Your task to perform on an android device: turn smart compose on in the gmail app Image 0: 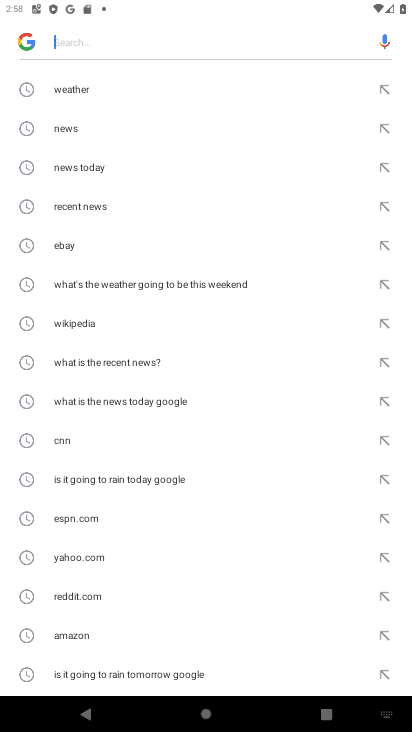
Step 0: press home button
Your task to perform on an android device: turn smart compose on in the gmail app Image 1: 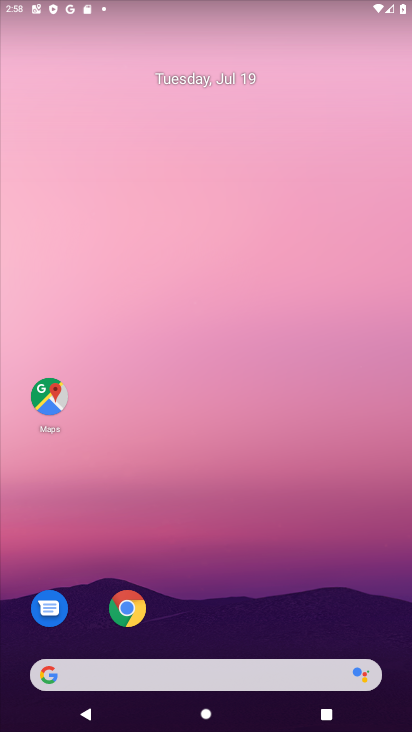
Step 1: drag from (277, 613) to (261, 5)
Your task to perform on an android device: turn smart compose on in the gmail app Image 2: 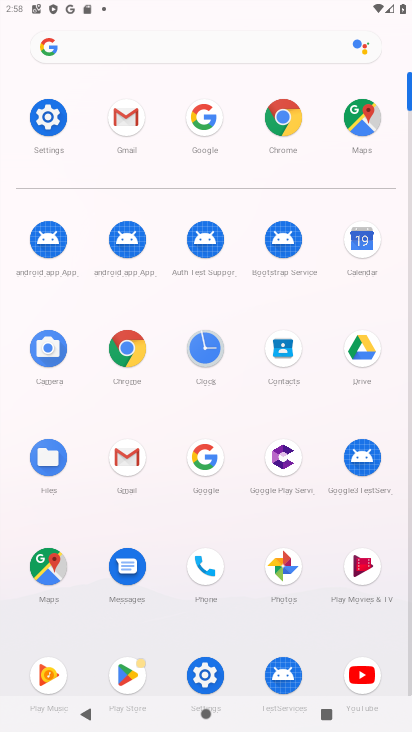
Step 2: click (131, 119)
Your task to perform on an android device: turn smart compose on in the gmail app Image 3: 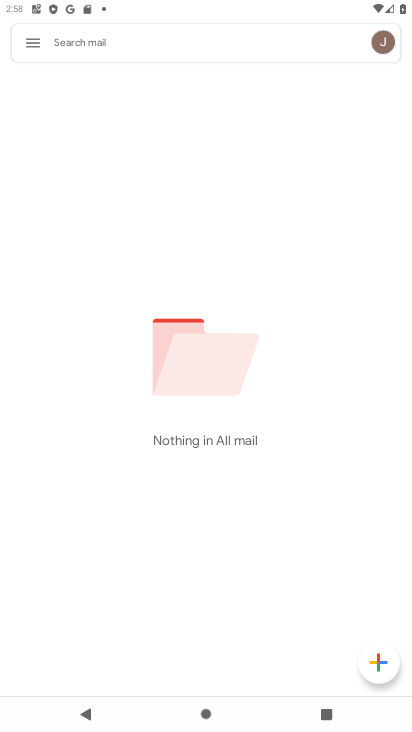
Step 3: click (40, 35)
Your task to perform on an android device: turn smart compose on in the gmail app Image 4: 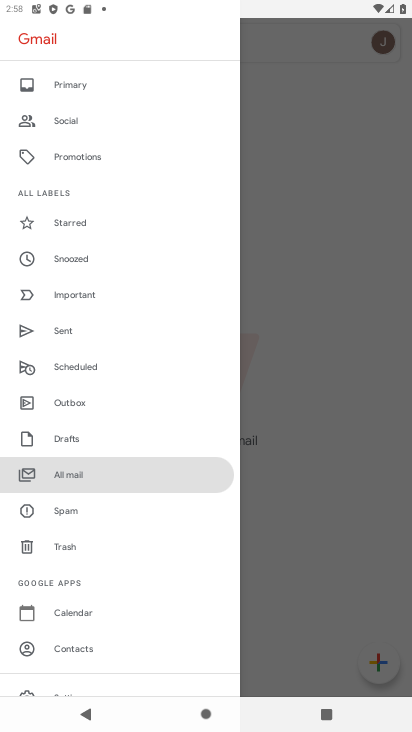
Step 4: drag from (111, 621) to (165, 207)
Your task to perform on an android device: turn smart compose on in the gmail app Image 5: 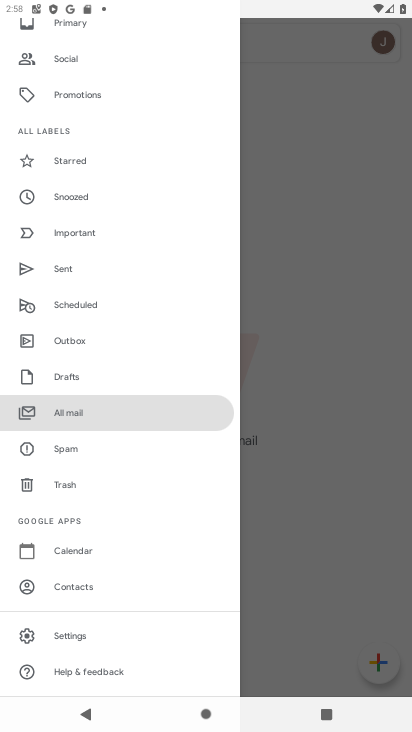
Step 5: click (64, 627)
Your task to perform on an android device: turn smart compose on in the gmail app Image 6: 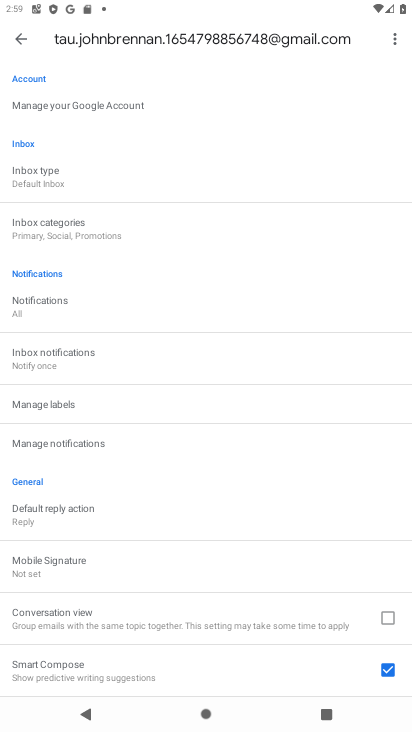
Step 6: task complete